Your task to perform on an android device: Open settings Image 0: 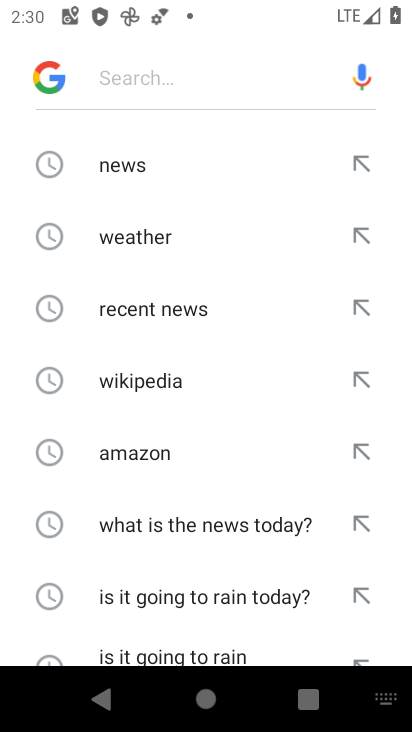
Step 0: press home button
Your task to perform on an android device: Open settings Image 1: 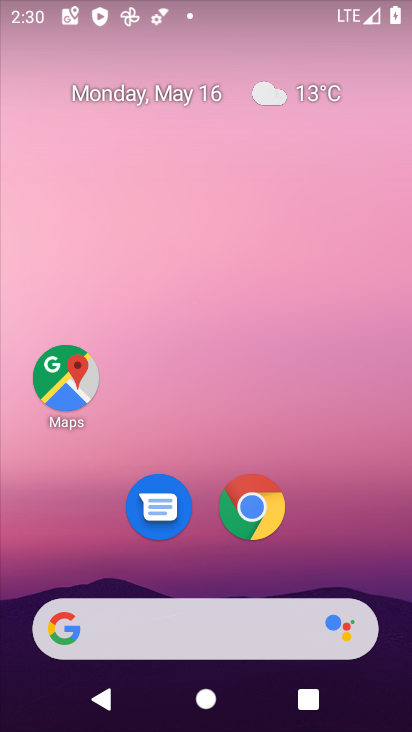
Step 1: drag from (320, 496) to (216, 73)
Your task to perform on an android device: Open settings Image 2: 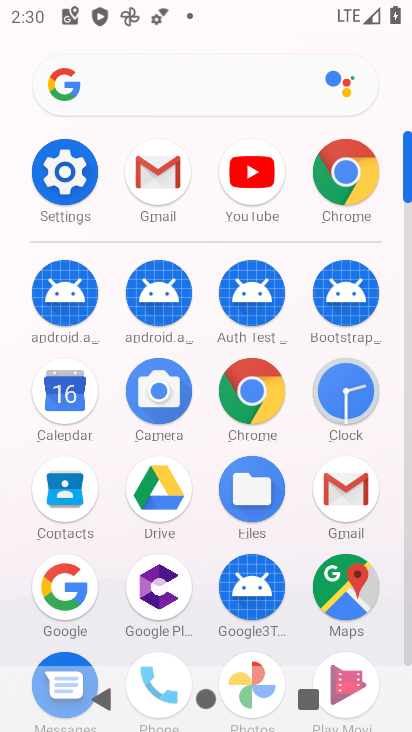
Step 2: click (71, 182)
Your task to perform on an android device: Open settings Image 3: 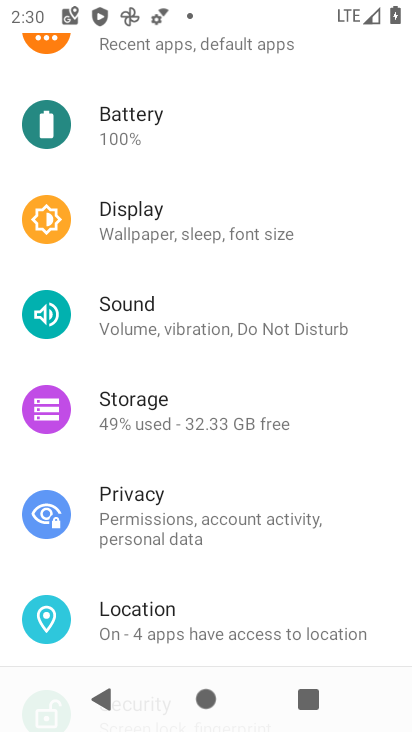
Step 3: task complete